Your task to perform on an android device: Go to Reddit.com Image 0: 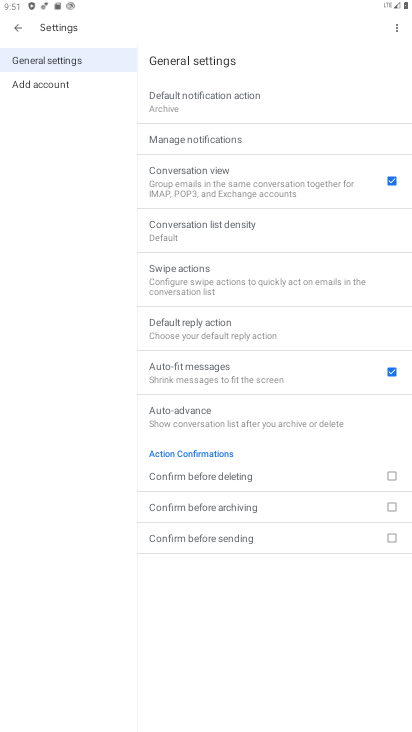
Step 0: press home button
Your task to perform on an android device: Go to Reddit.com Image 1: 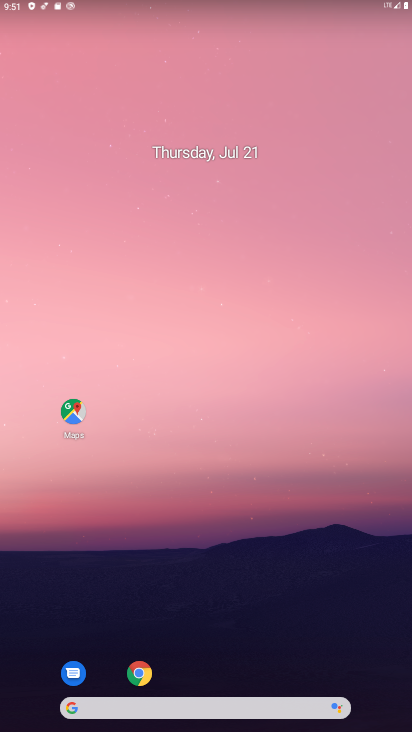
Step 1: click (138, 671)
Your task to perform on an android device: Go to Reddit.com Image 2: 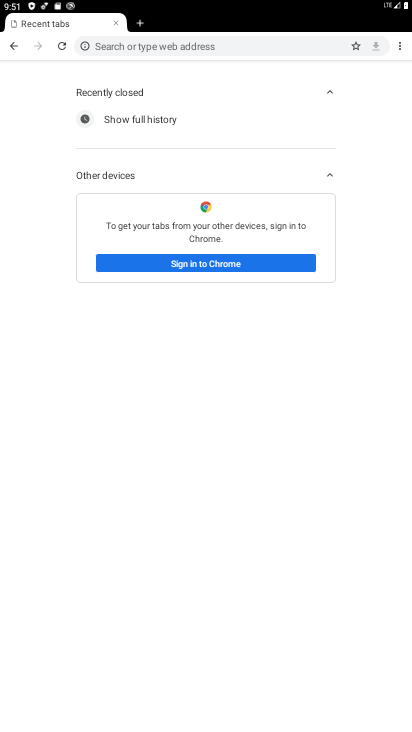
Step 2: click (323, 47)
Your task to perform on an android device: Go to Reddit.com Image 3: 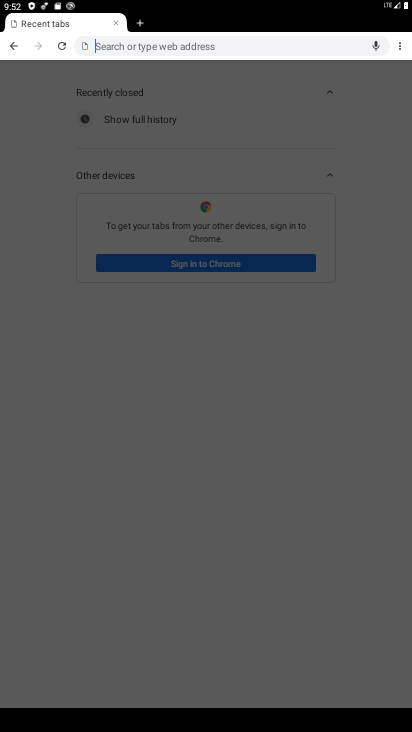
Step 3: type "Reddit.com"
Your task to perform on an android device: Go to Reddit.com Image 4: 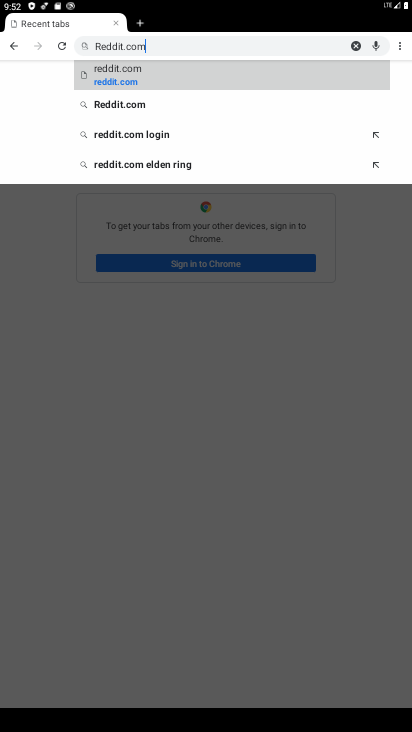
Step 4: type ""
Your task to perform on an android device: Go to Reddit.com Image 5: 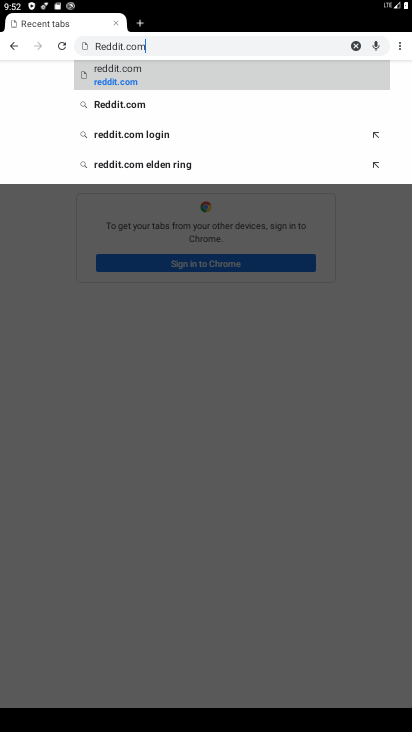
Step 5: click (110, 76)
Your task to perform on an android device: Go to Reddit.com Image 6: 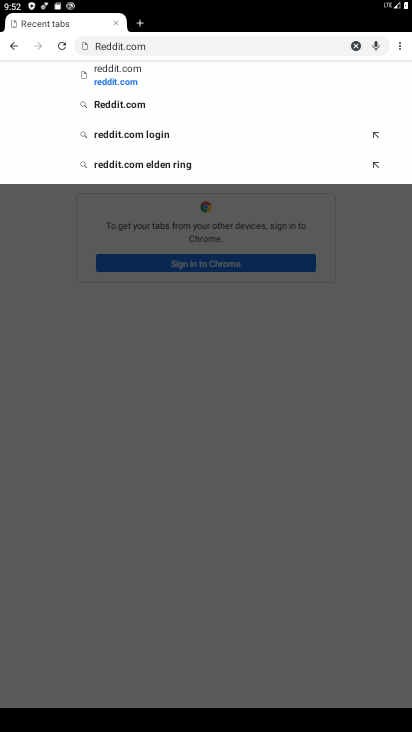
Step 6: click (112, 77)
Your task to perform on an android device: Go to Reddit.com Image 7: 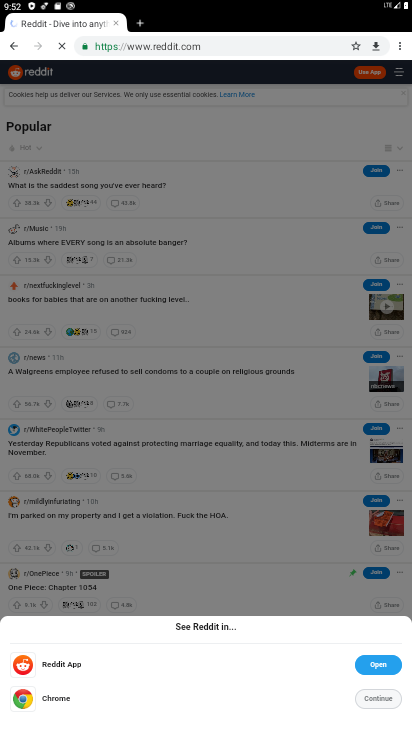
Step 7: task complete